Your task to perform on an android device: Is it going to rain tomorrow? Image 0: 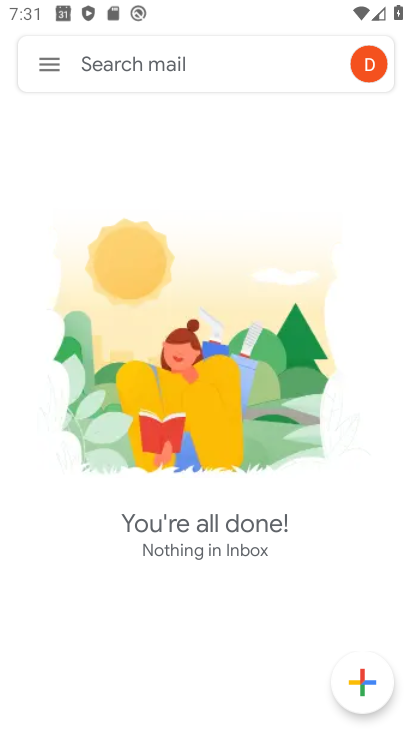
Step 0: press home button
Your task to perform on an android device: Is it going to rain tomorrow? Image 1: 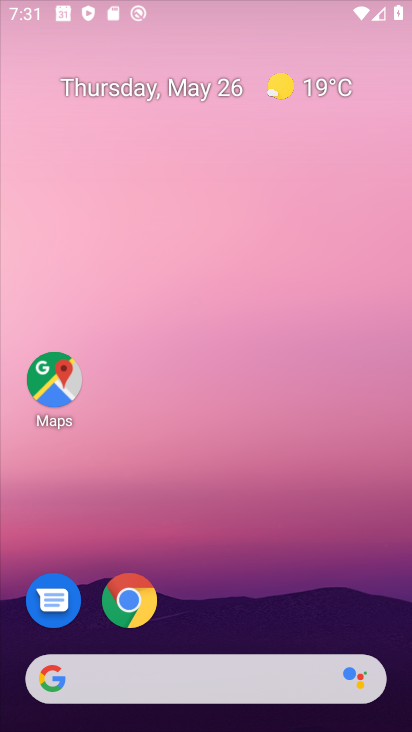
Step 1: drag from (259, 716) to (269, 231)
Your task to perform on an android device: Is it going to rain tomorrow? Image 2: 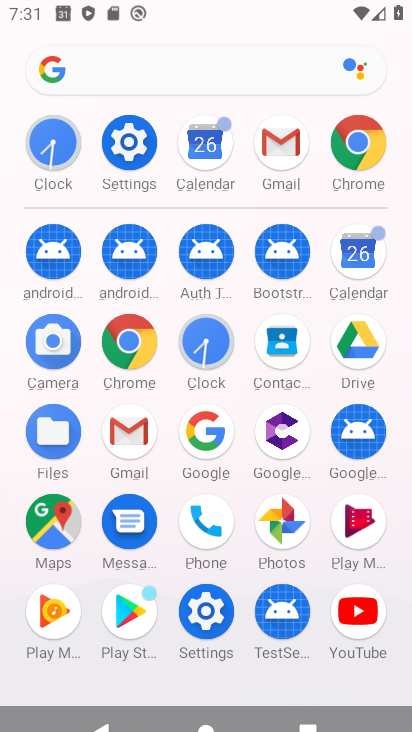
Step 2: click (151, 80)
Your task to perform on an android device: Is it going to rain tomorrow? Image 3: 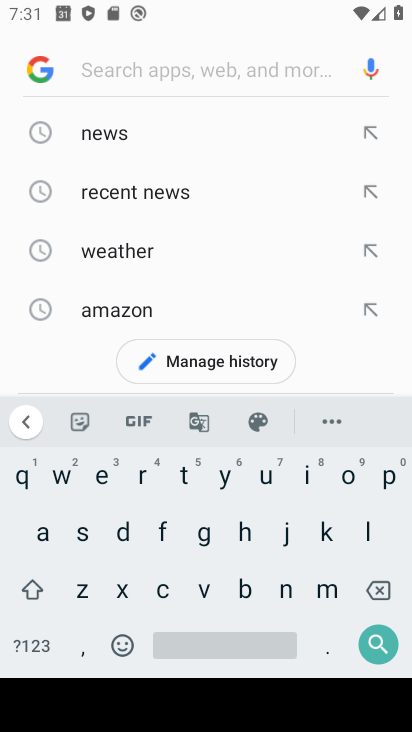
Step 3: click (114, 253)
Your task to perform on an android device: Is it going to rain tomorrow? Image 4: 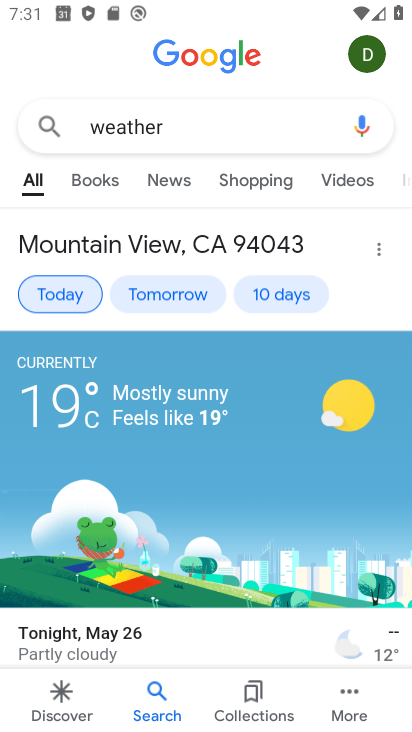
Step 4: click (165, 290)
Your task to perform on an android device: Is it going to rain tomorrow? Image 5: 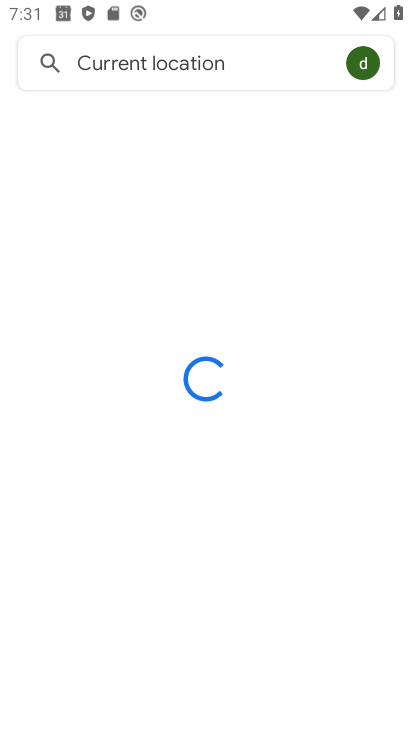
Step 5: click (164, 289)
Your task to perform on an android device: Is it going to rain tomorrow? Image 6: 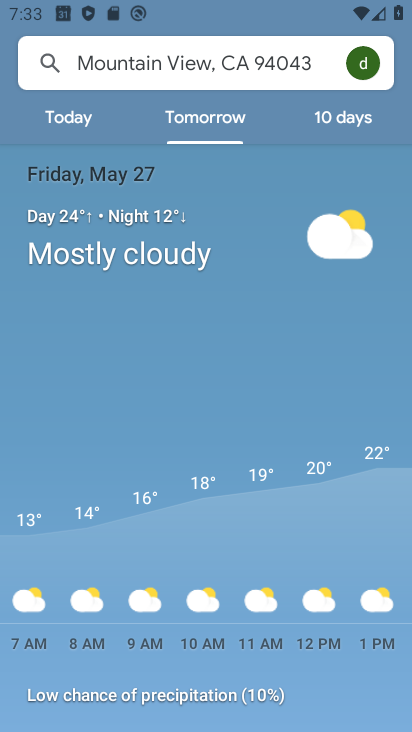
Step 6: task complete